Your task to perform on an android device: open wifi settings Image 0: 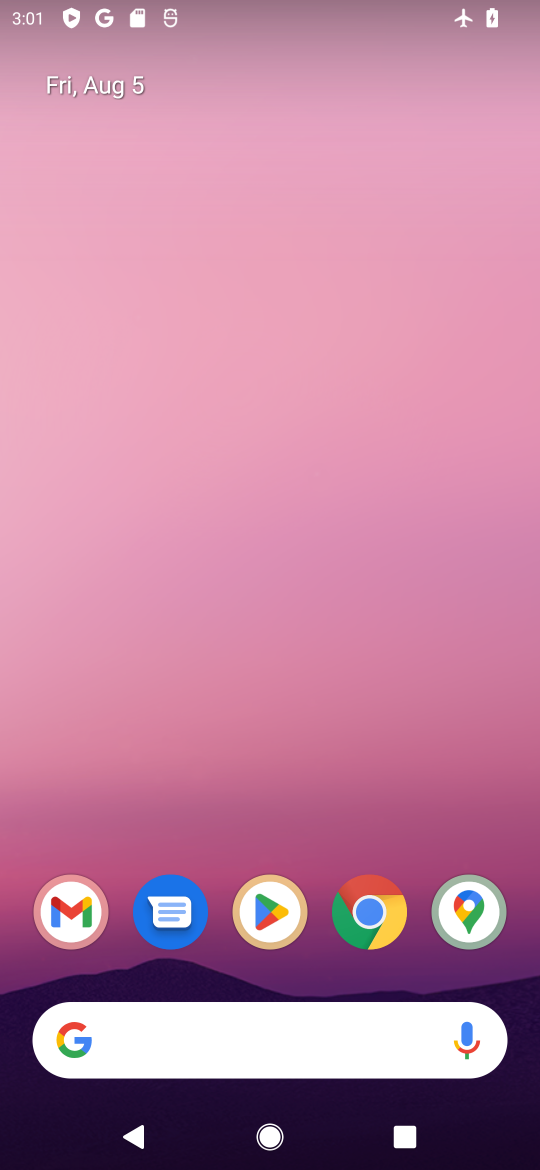
Step 0: drag from (207, 902) to (340, 63)
Your task to perform on an android device: open wifi settings Image 1: 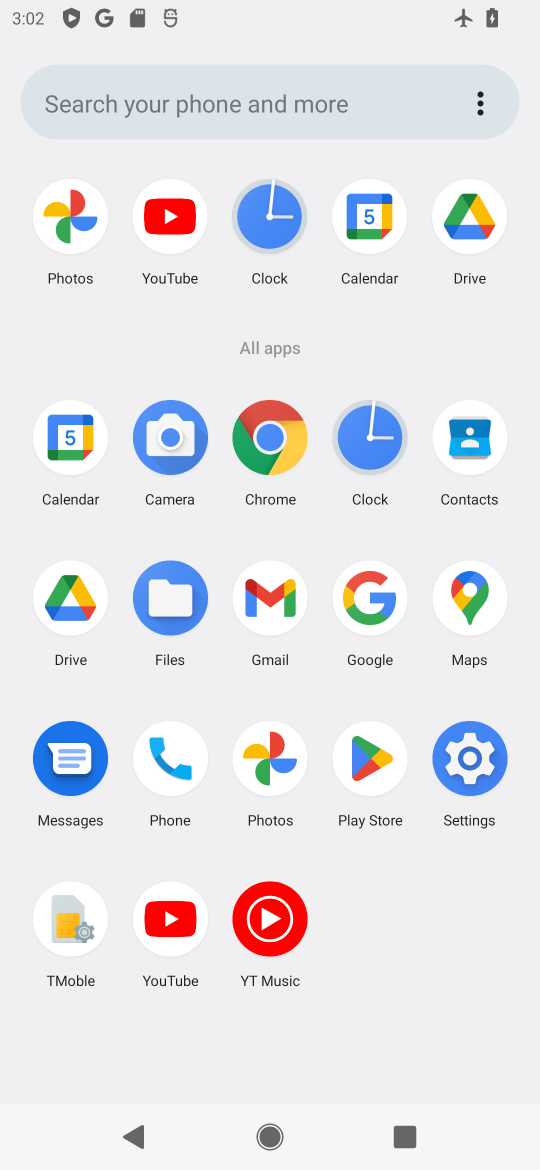
Step 1: click (458, 809)
Your task to perform on an android device: open wifi settings Image 2: 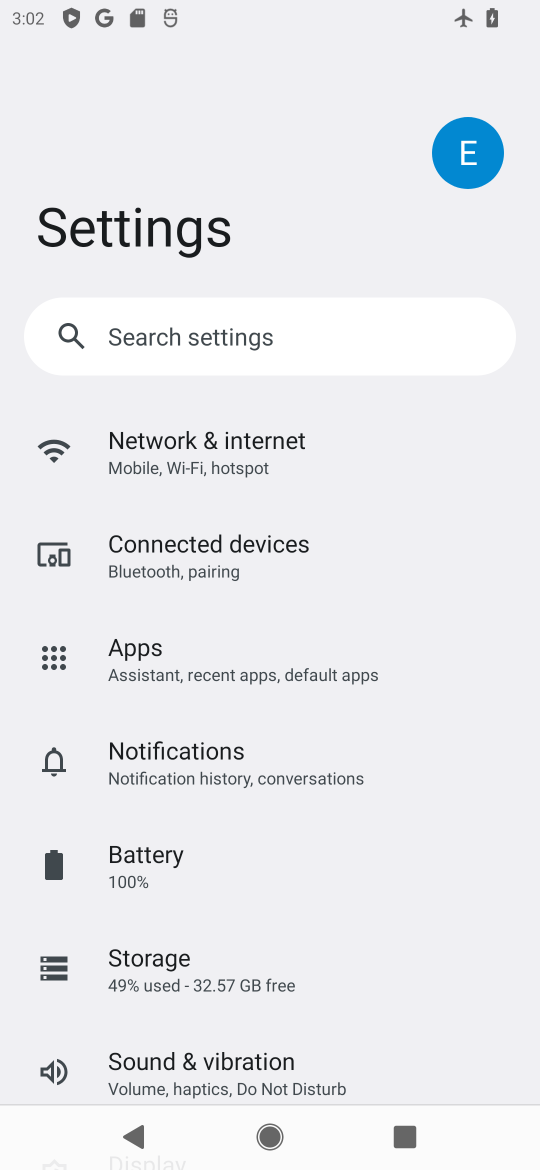
Step 2: click (163, 467)
Your task to perform on an android device: open wifi settings Image 3: 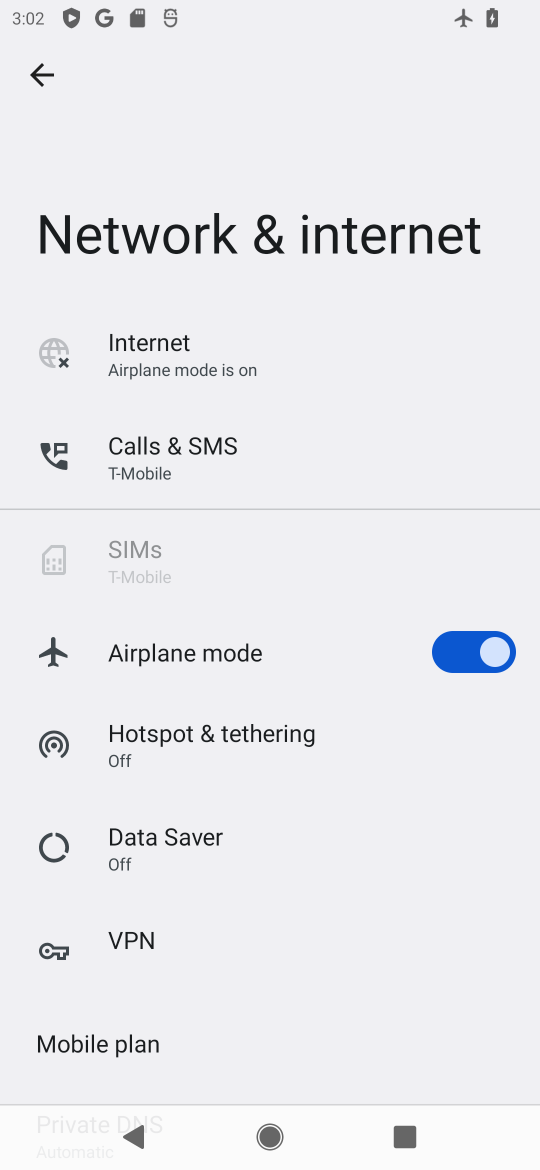
Step 3: click (209, 369)
Your task to perform on an android device: open wifi settings Image 4: 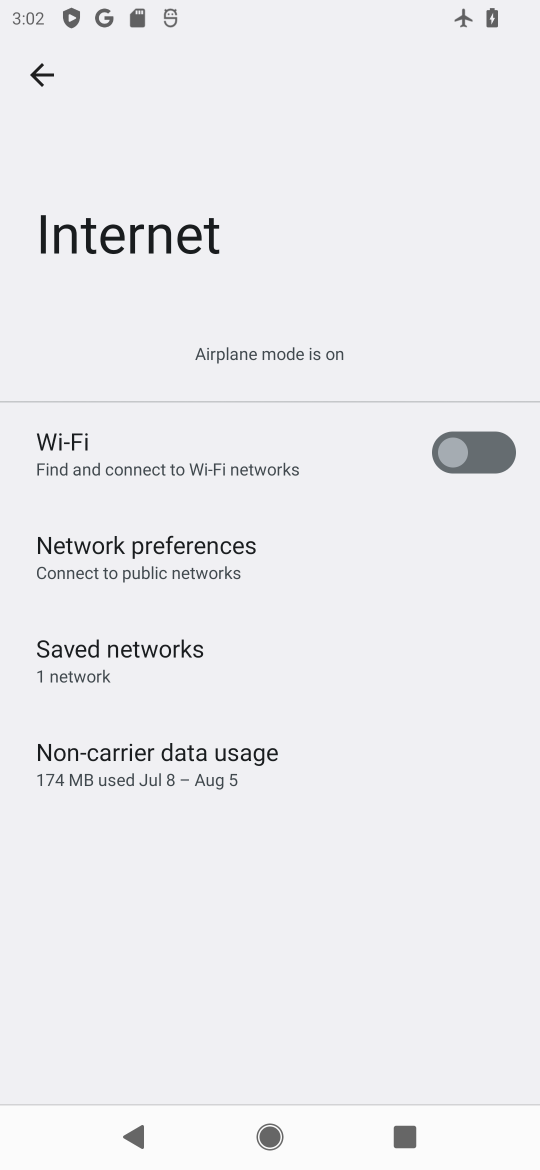
Step 4: task complete